Your task to perform on an android device: Clear all items from cart on amazon. Add macbook to the cart on amazon Image 0: 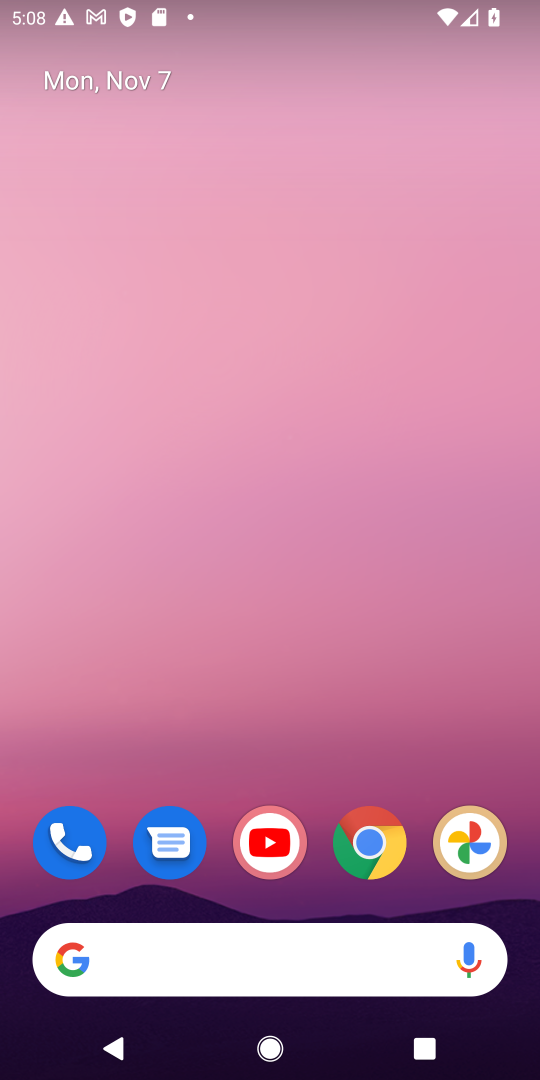
Step 0: drag from (241, 614) to (372, 42)
Your task to perform on an android device: Clear all items from cart on amazon. Add macbook to the cart on amazon Image 1: 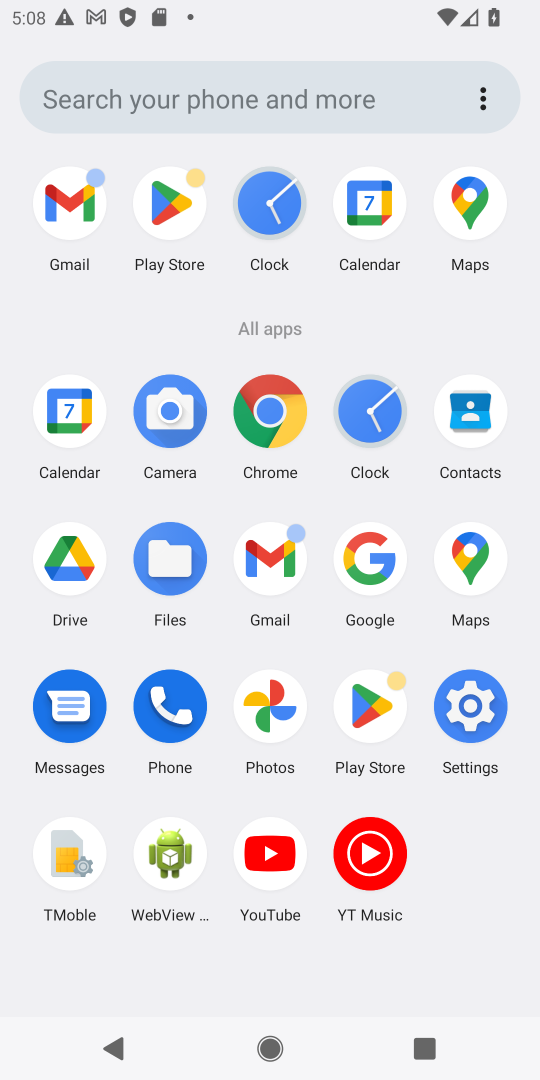
Step 1: click (230, 434)
Your task to perform on an android device: Clear all items from cart on amazon. Add macbook to the cart on amazon Image 2: 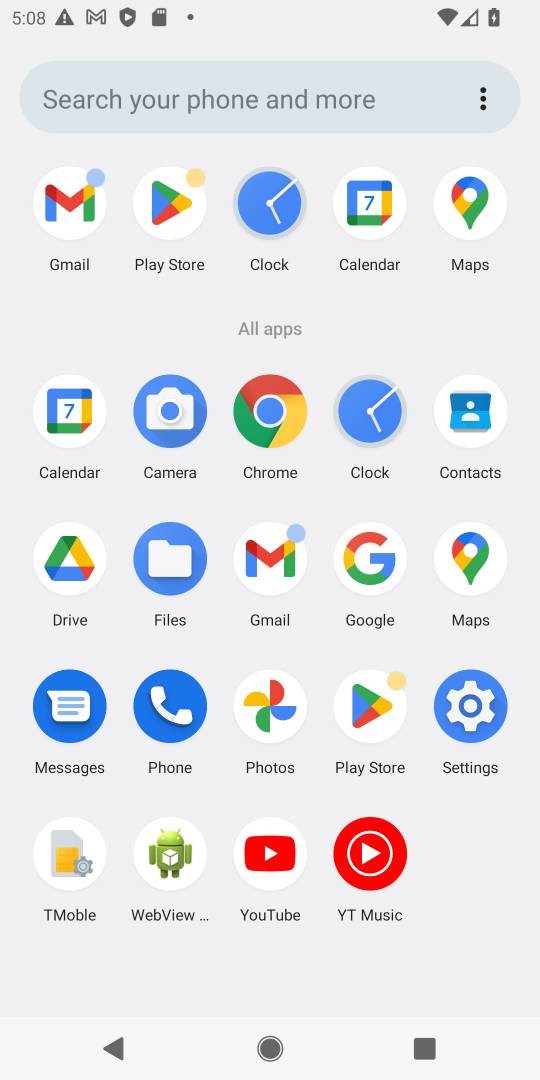
Step 2: click (262, 424)
Your task to perform on an android device: Clear all items from cart on amazon. Add macbook to the cart on amazon Image 3: 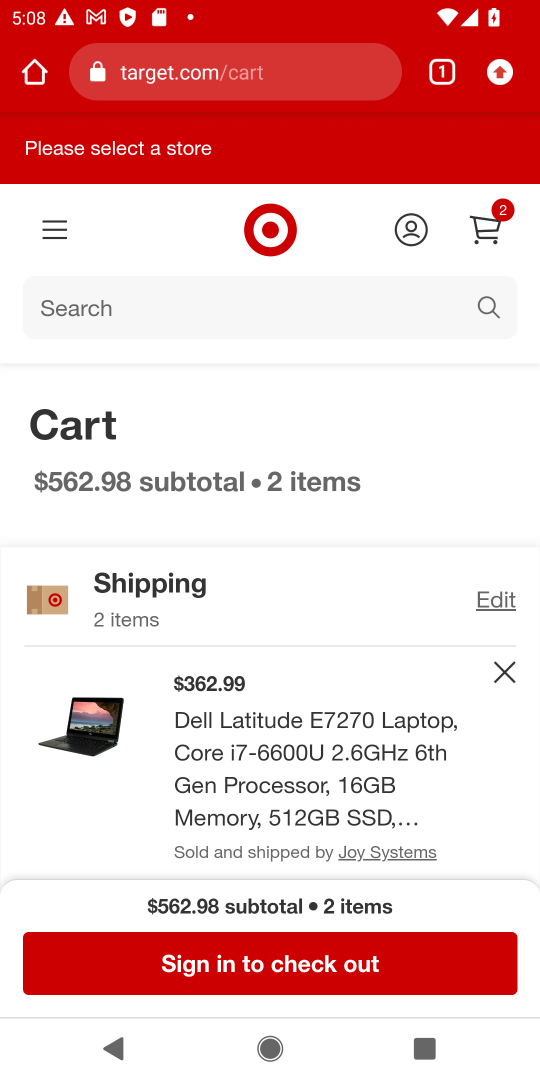
Step 3: click (283, 69)
Your task to perform on an android device: Clear all items from cart on amazon. Add macbook to the cart on amazon Image 4: 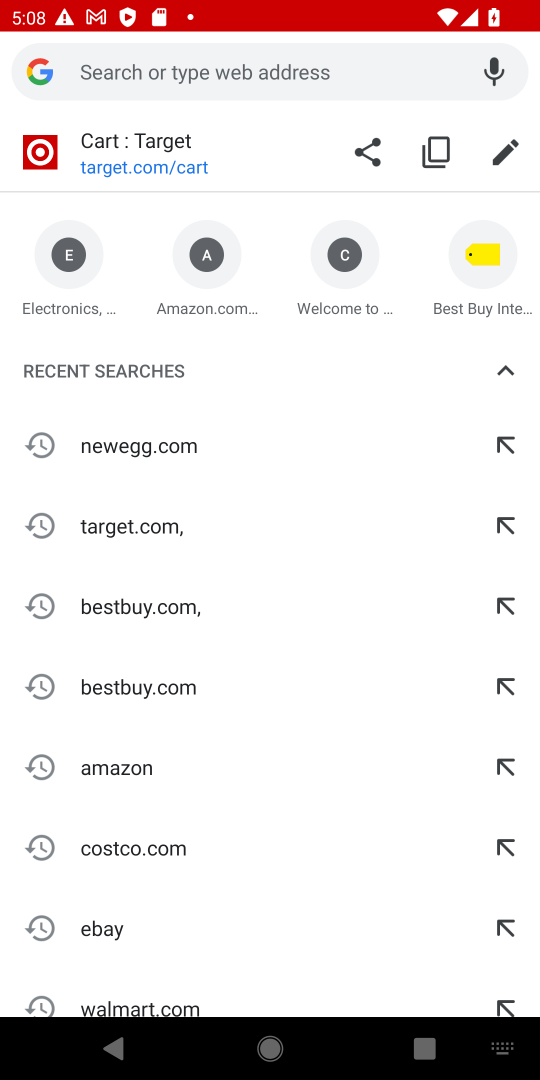
Step 4: click (103, 762)
Your task to perform on an android device: Clear all items from cart on amazon. Add macbook to the cart on amazon Image 5: 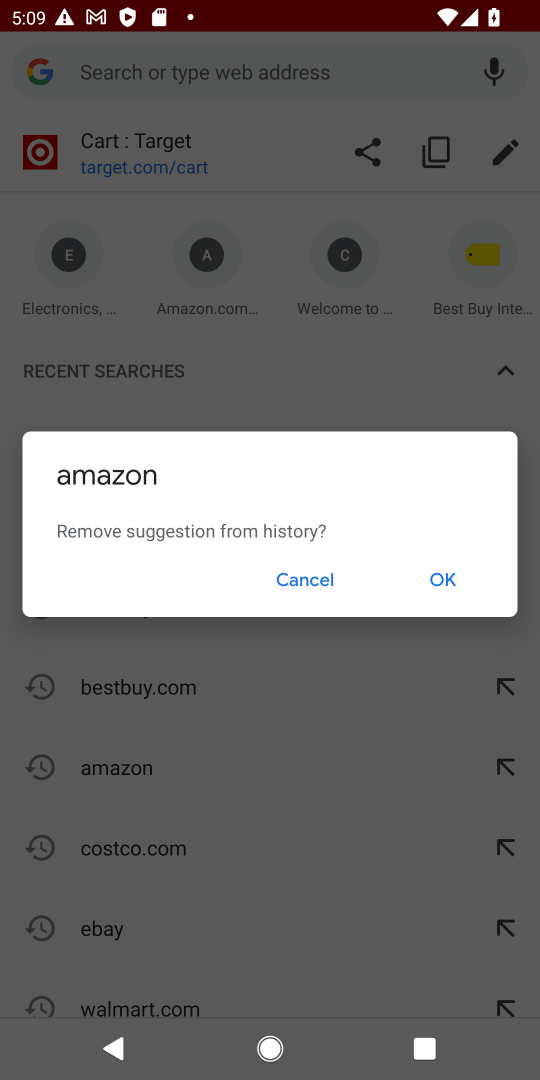
Step 5: click (288, 582)
Your task to perform on an android device: Clear all items from cart on amazon. Add macbook to the cart on amazon Image 6: 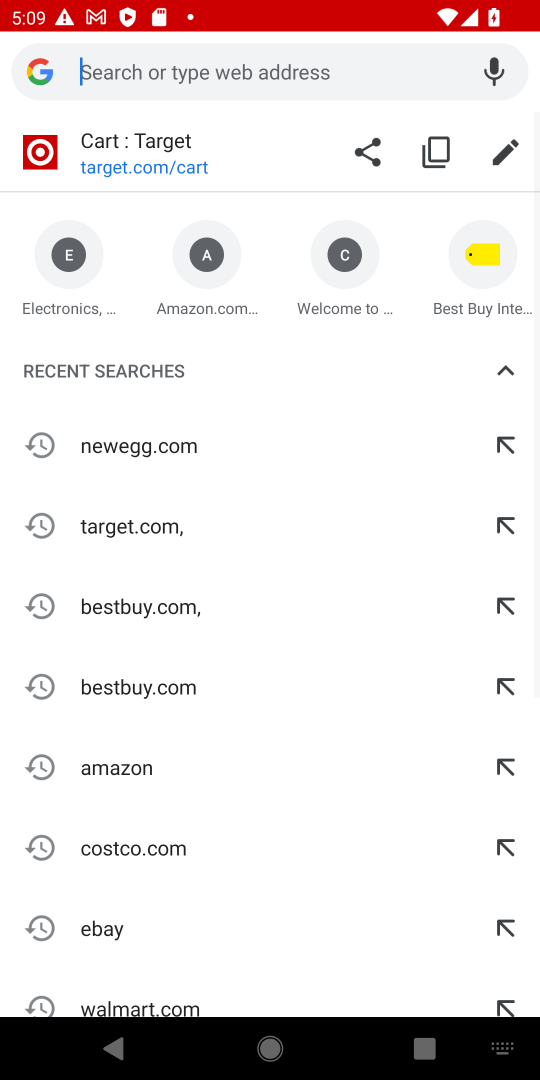
Step 6: click (94, 770)
Your task to perform on an android device: Clear all items from cart on amazon. Add macbook to the cart on amazon Image 7: 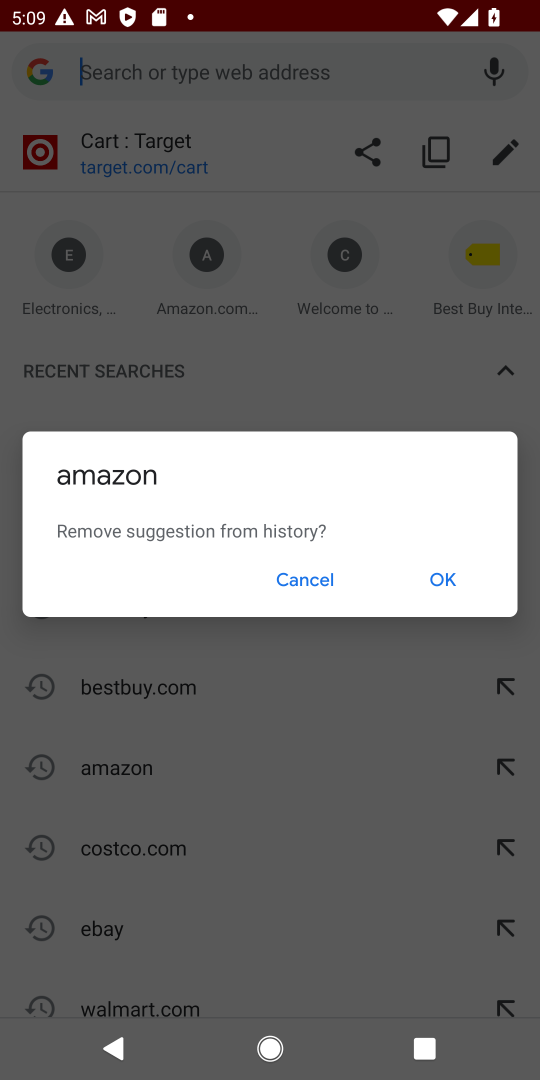
Step 7: click (315, 584)
Your task to perform on an android device: Clear all items from cart on amazon. Add macbook to the cart on amazon Image 8: 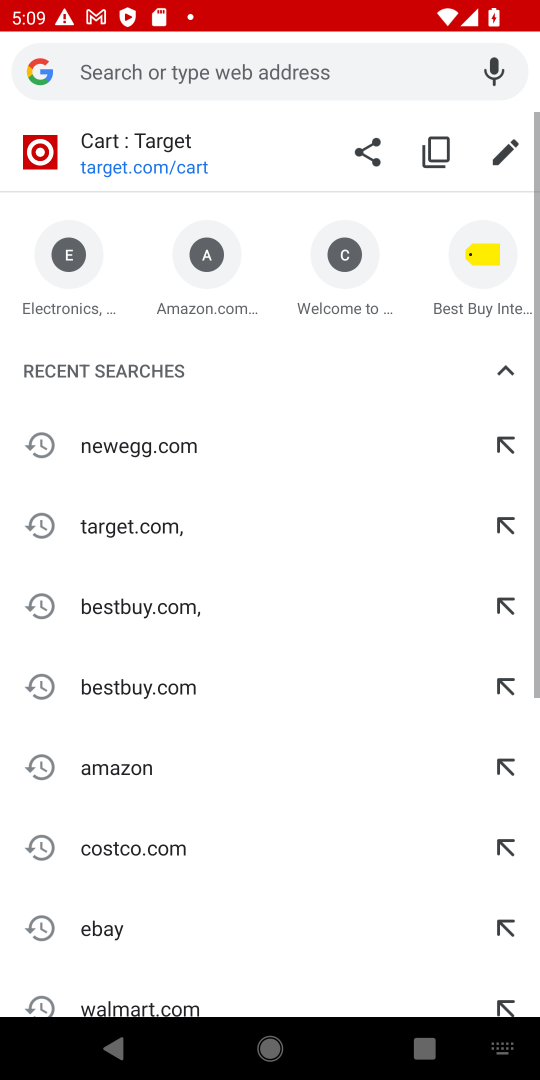
Step 8: click (30, 760)
Your task to perform on an android device: Clear all items from cart on amazon. Add macbook to the cart on amazon Image 9: 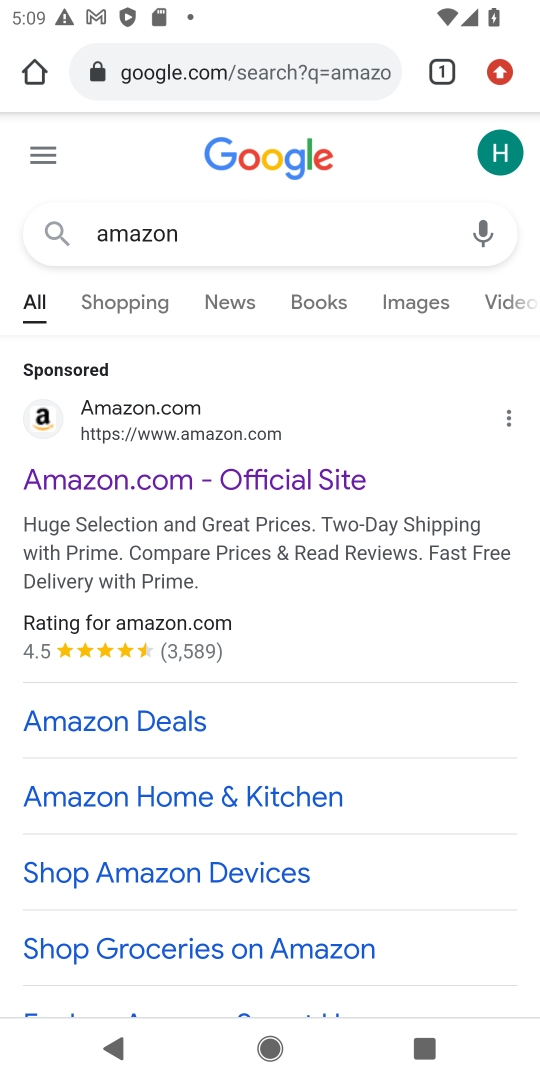
Step 9: click (70, 410)
Your task to perform on an android device: Clear all items from cart on amazon. Add macbook to the cart on amazon Image 10: 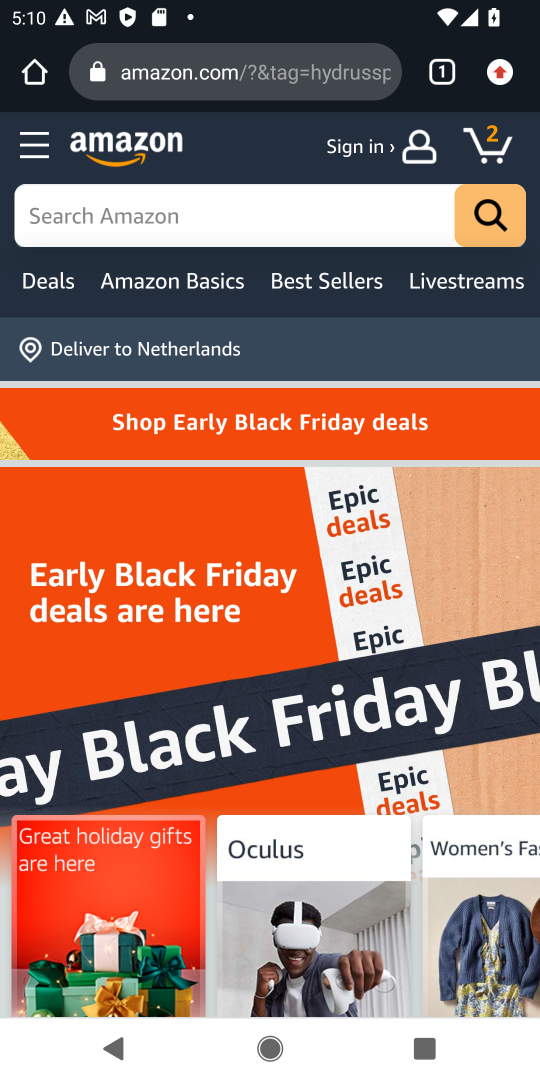
Step 10: click (227, 234)
Your task to perform on an android device: Clear all items from cart on amazon. Add macbook to the cart on amazon Image 11: 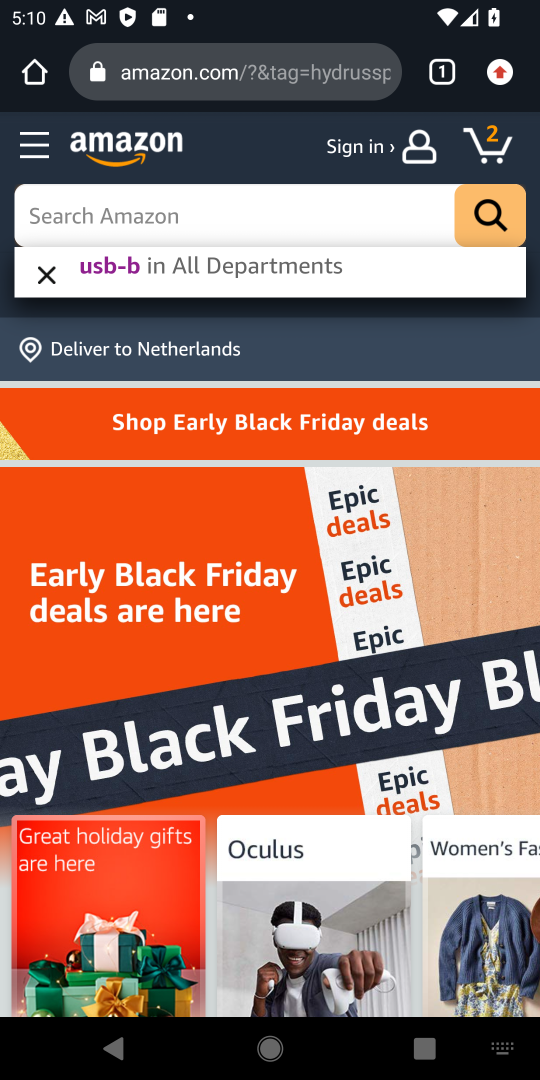
Step 11: click (496, 139)
Your task to perform on an android device: Clear all items from cart on amazon. Add macbook to the cart on amazon Image 12: 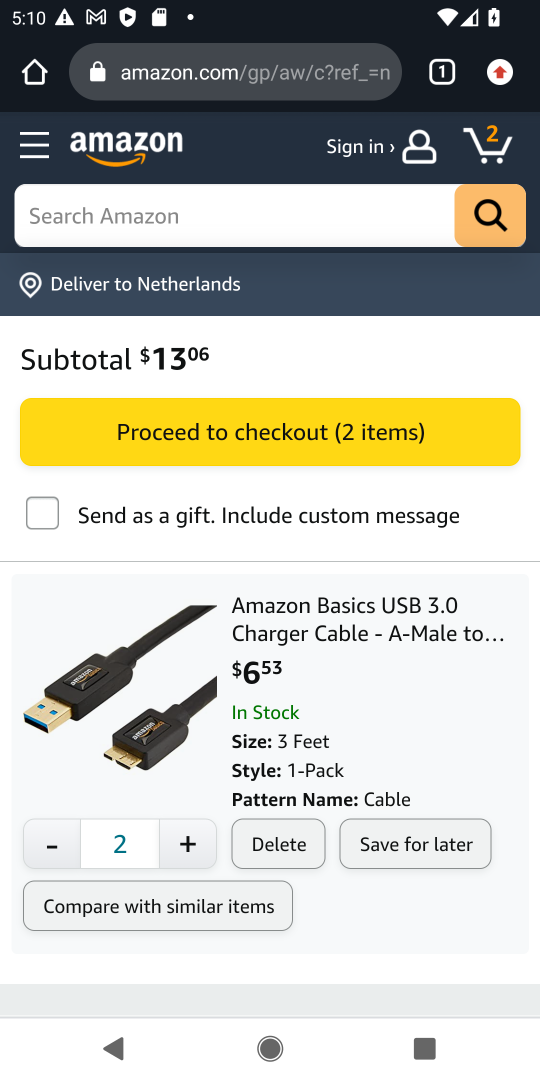
Step 12: click (55, 849)
Your task to perform on an android device: Clear all items from cart on amazon. Add macbook to the cart on amazon Image 13: 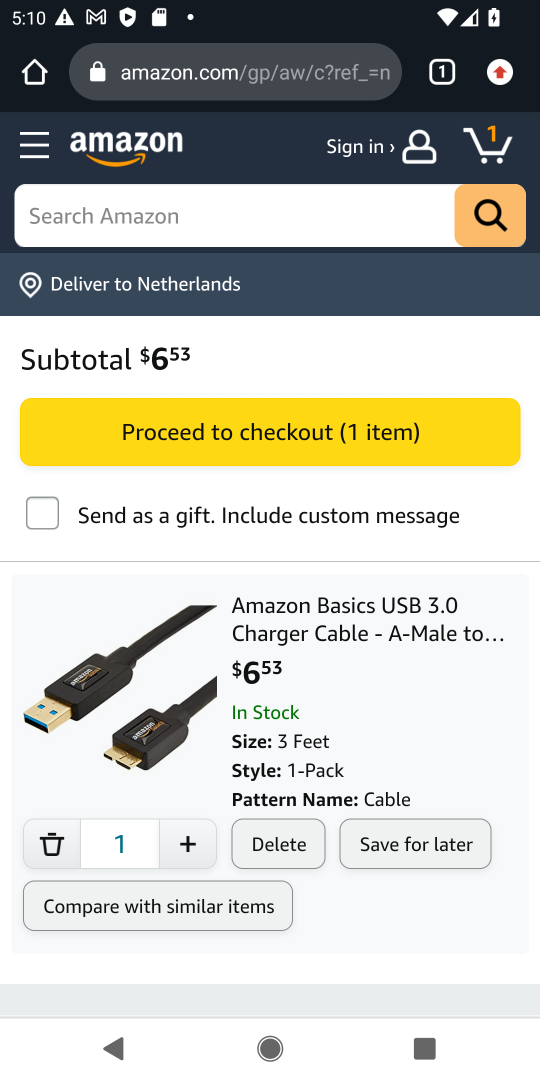
Step 13: drag from (396, 924) to (500, 529)
Your task to perform on an android device: Clear all items from cart on amazon. Add macbook to the cart on amazon Image 14: 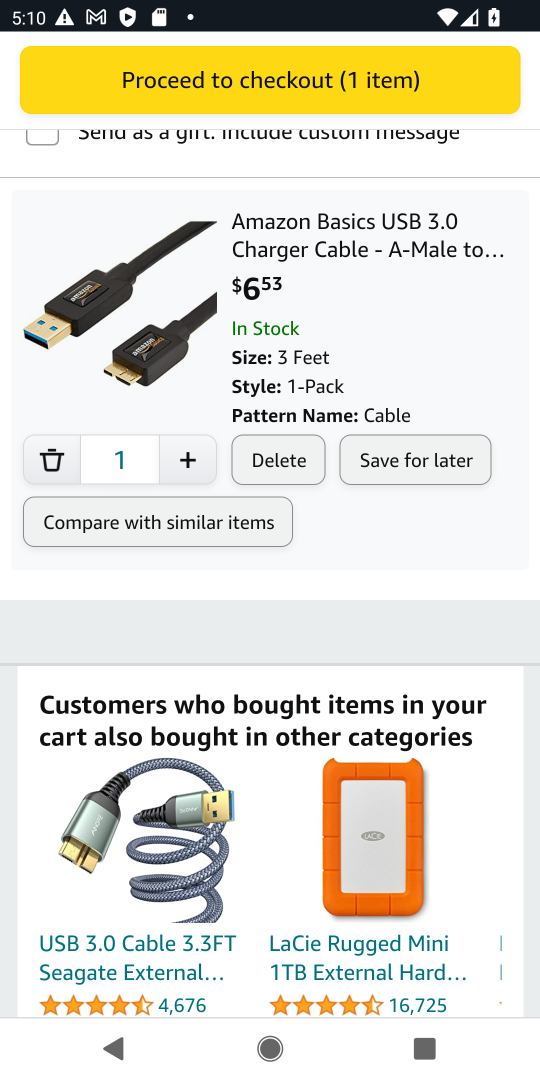
Step 14: drag from (389, 857) to (430, 322)
Your task to perform on an android device: Clear all items from cart on amazon. Add macbook to the cart on amazon Image 15: 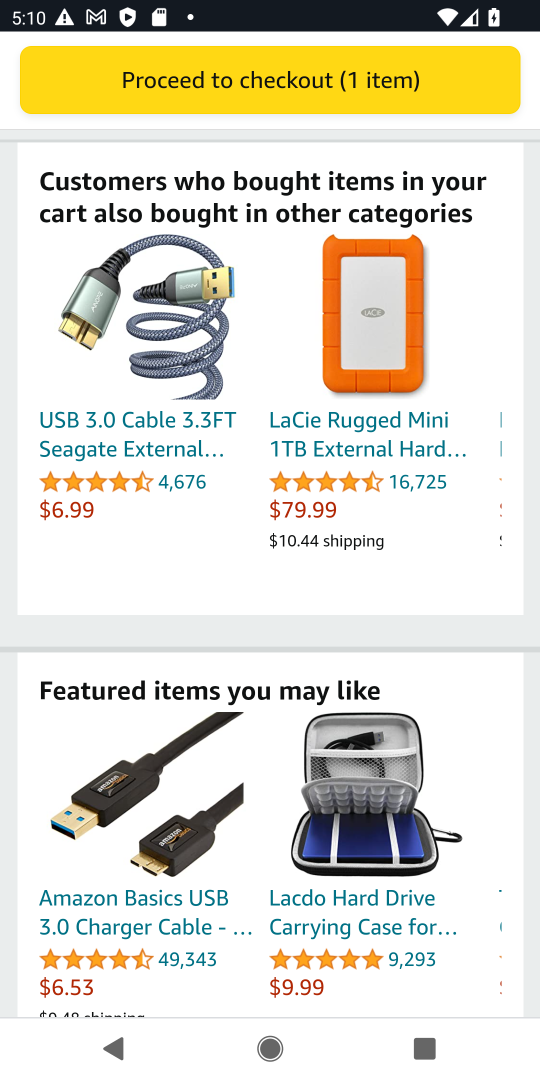
Step 15: drag from (342, 761) to (404, 322)
Your task to perform on an android device: Clear all items from cart on amazon. Add macbook to the cart on amazon Image 16: 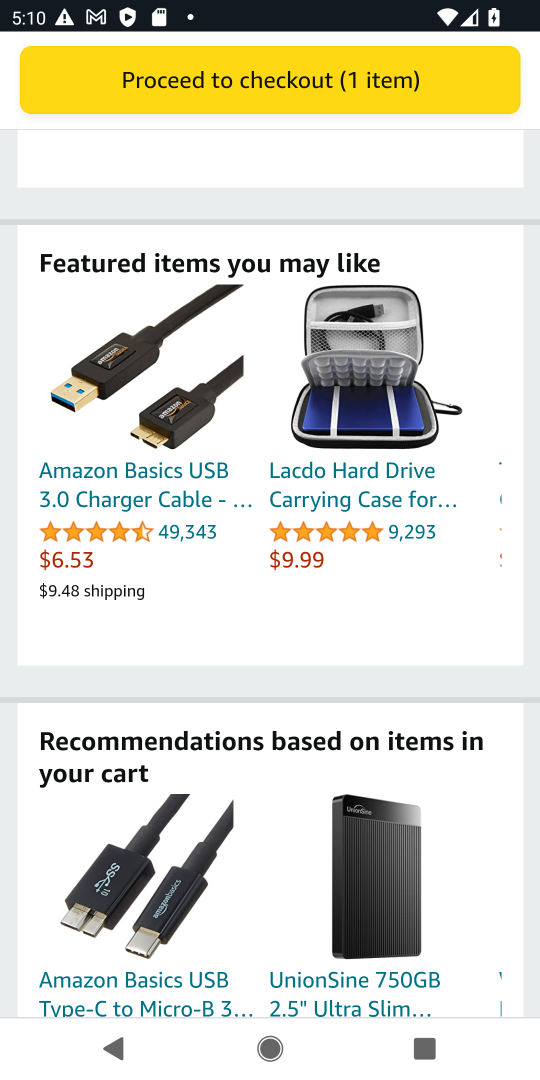
Step 16: drag from (289, 871) to (360, 325)
Your task to perform on an android device: Clear all items from cart on amazon. Add macbook to the cart on amazon Image 17: 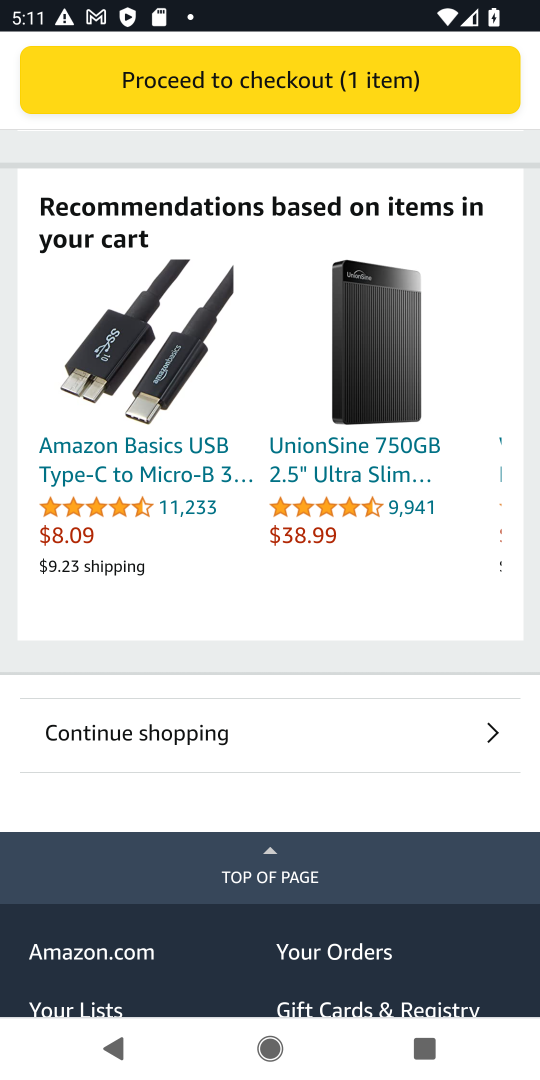
Step 17: drag from (360, 348) to (277, 877)
Your task to perform on an android device: Clear all items from cart on amazon. Add macbook to the cart on amazon Image 18: 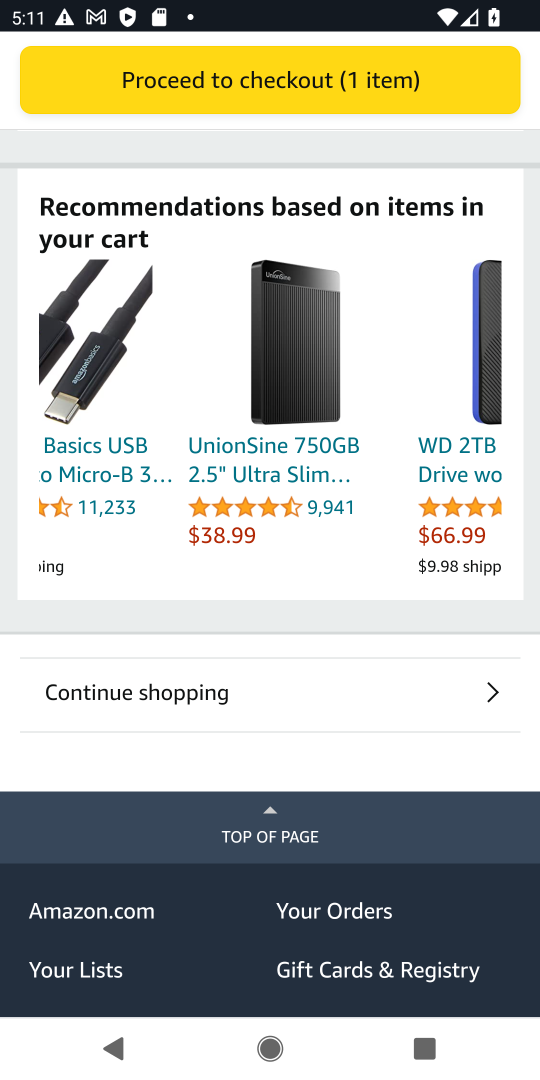
Step 18: drag from (303, 253) to (228, 840)
Your task to perform on an android device: Clear all items from cart on amazon. Add macbook to the cart on amazon Image 19: 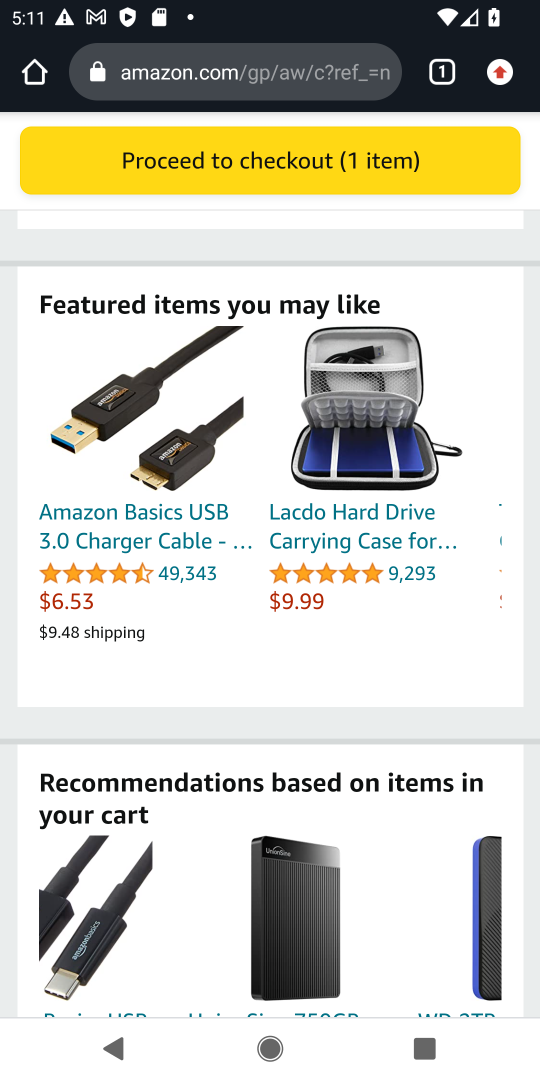
Step 19: drag from (328, 371) to (269, 889)
Your task to perform on an android device: Clear all items from cart on amazon. Add macbook to the cart on amazon Image 20: 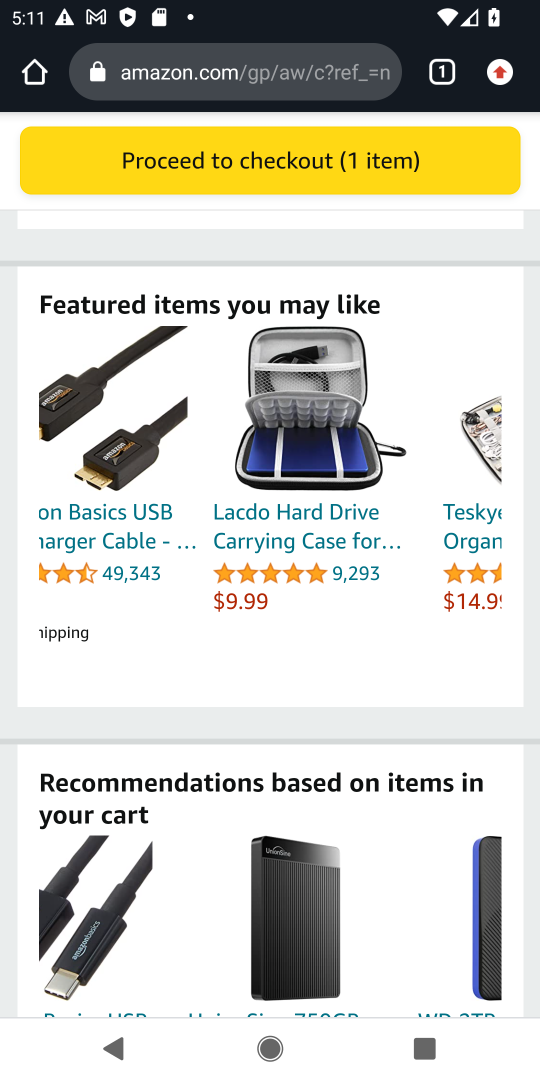
Step 20: drag from (403, 270) to (373, 778)
Your task to perform on an android device: Clear all items from cart on amazon. Add macbook to the cart on amazon Image 21: 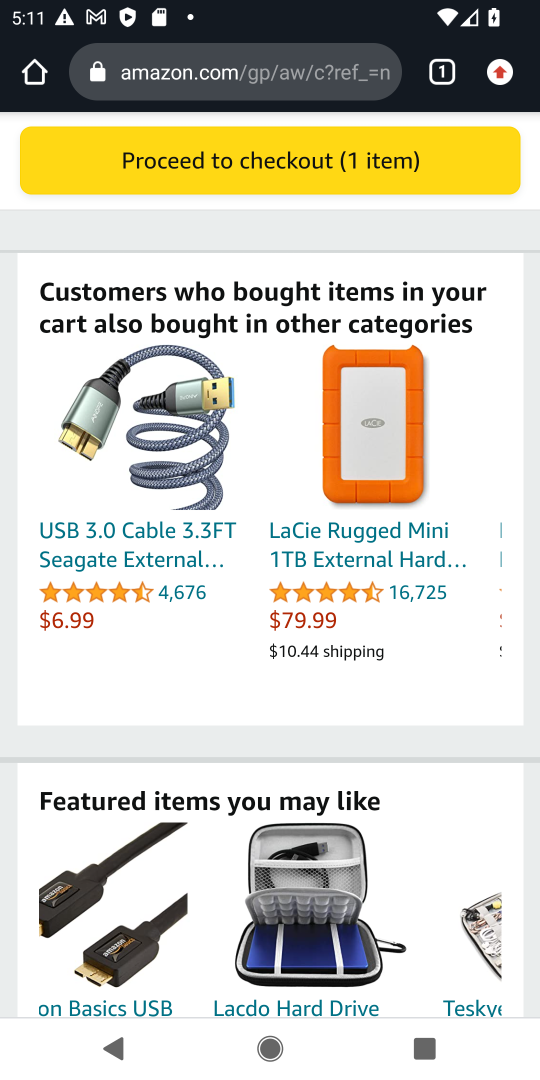
Step 21: drag from (465, 214) to (420, 735)
Your task to perform on an android device: Clear all items from cart on amazon. Add macbook to the cart on amazon Image 22: 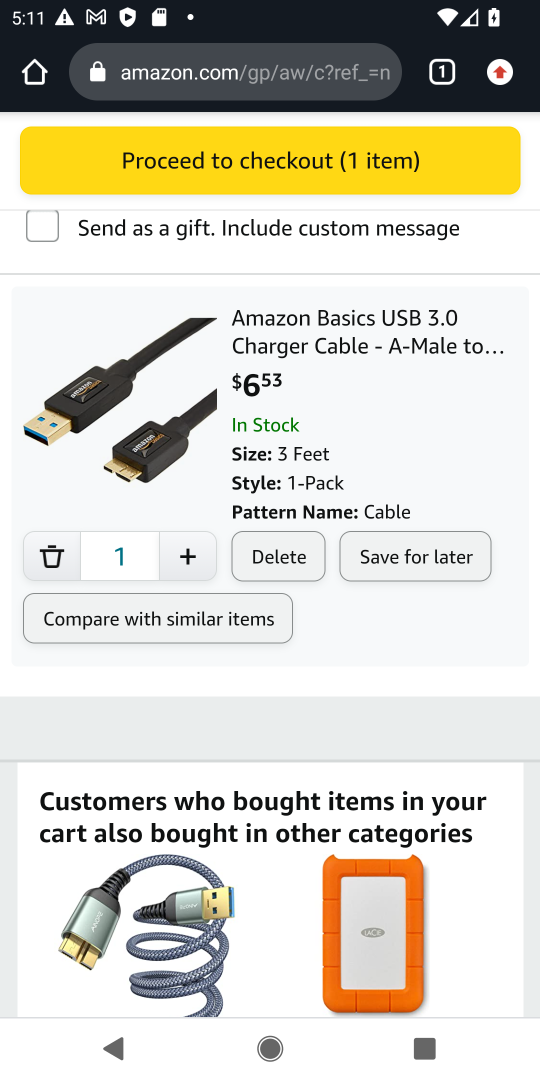
Step 22: drag from (471, 302) to (428, 788)
Your task to perform on an android device: Clear all items from cart on amazon. Add macbook to the cart on amazon Image 23: 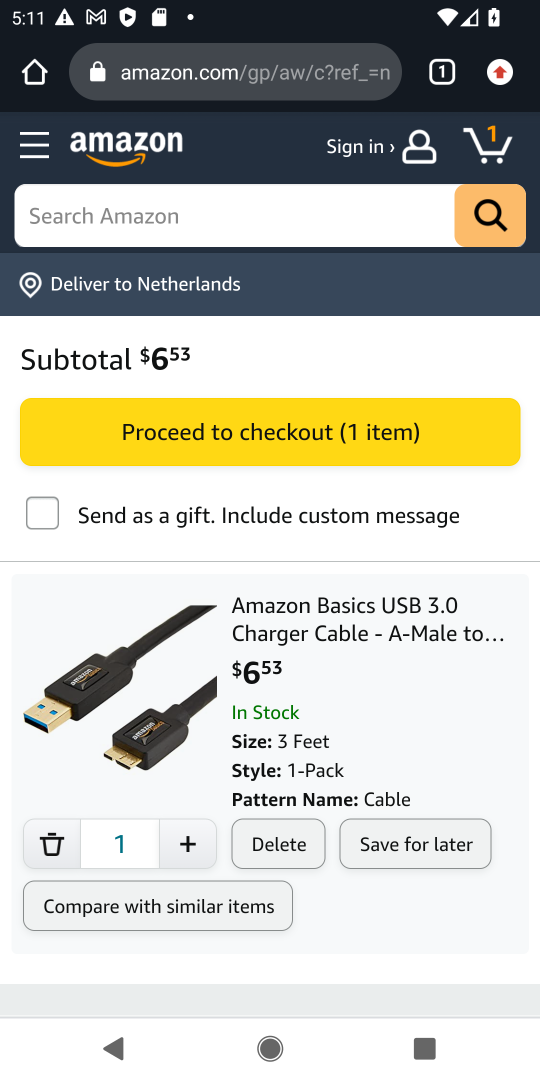
Step 23: click (277, 849)
Your task to perform on an android device: Clear all items from cart on amazon. Add macbook to the cart on amazon Image 24: 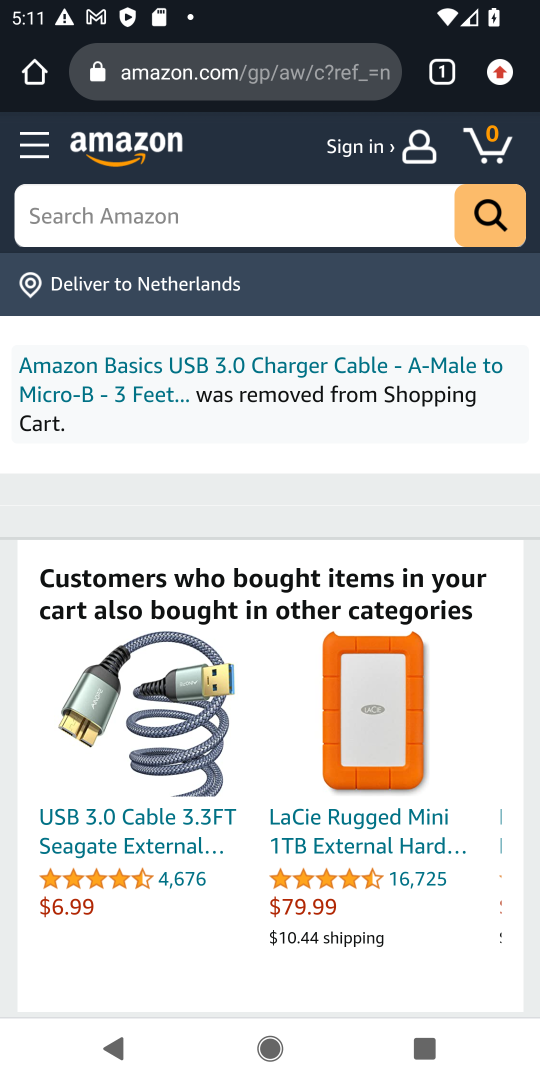
Step 24: click (262, 229)
Your task to perform on an android device: Clear all items from cart on amazon. Add macbook to the cart on amazon Image 25: 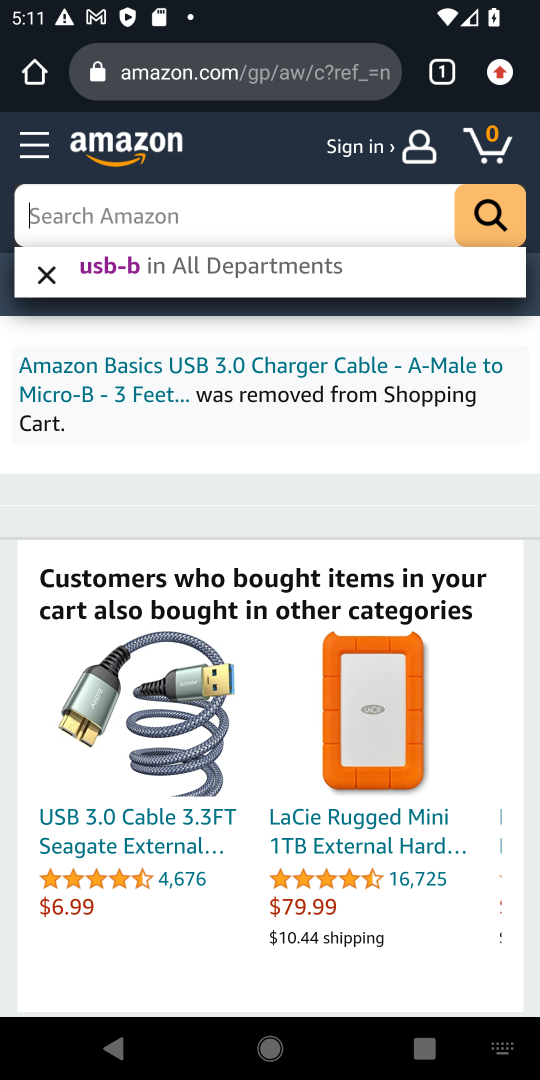
Step 25: type "macbook"
Your task to perform on an android device: Clear all items from cart on amazon. Add macbook to the cart on amazon Image 26: 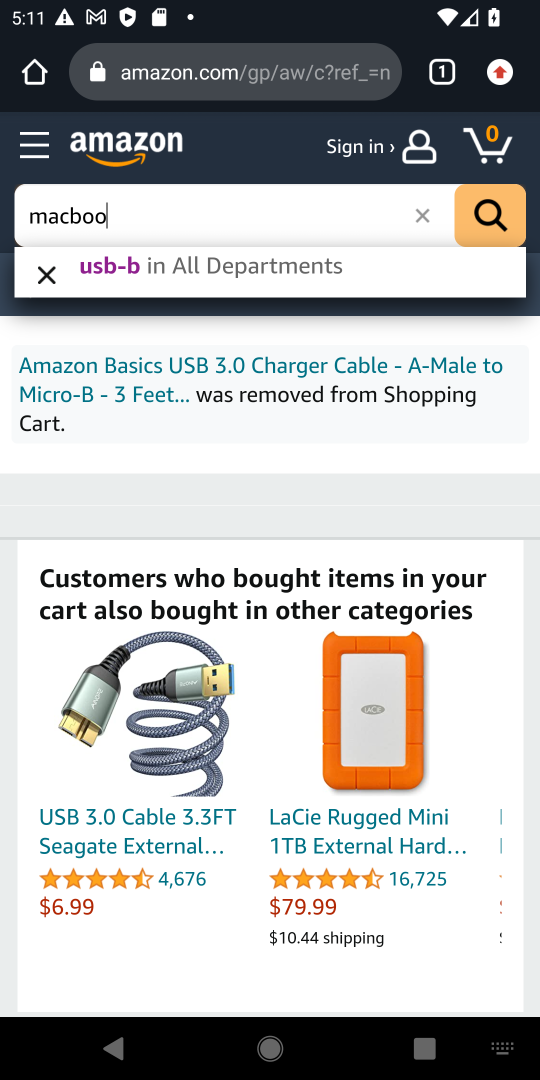
Step 26: press enter
Your task to perform on an android device: Clear all items from cart on amazon. Add macbook to the cart on amazon Image 27: 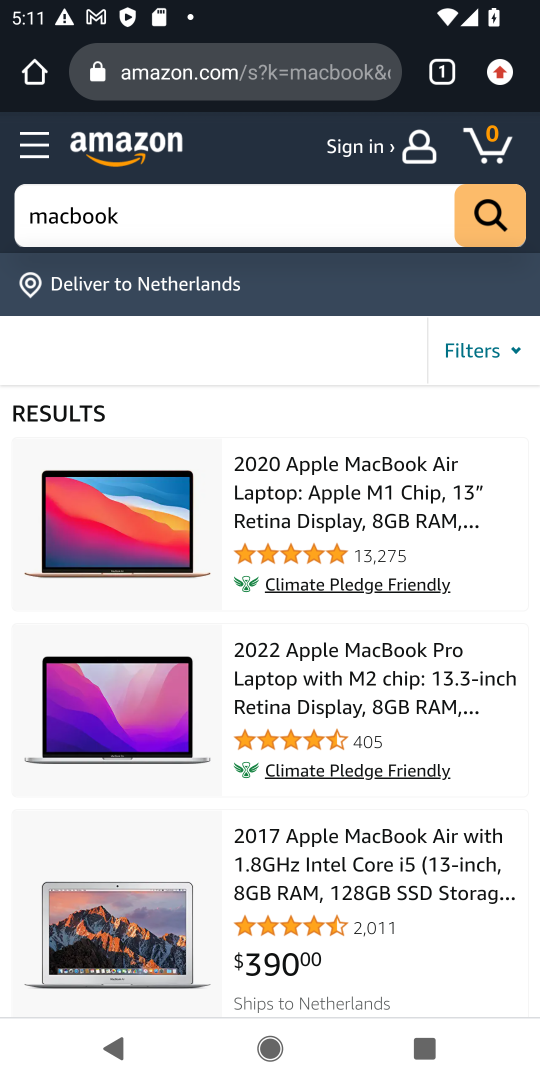
Step 27: click (72, 545)
Your task to perform on an android device: Clear all items from cart on amazon. Add macbook to the cart on amazon Image 28: 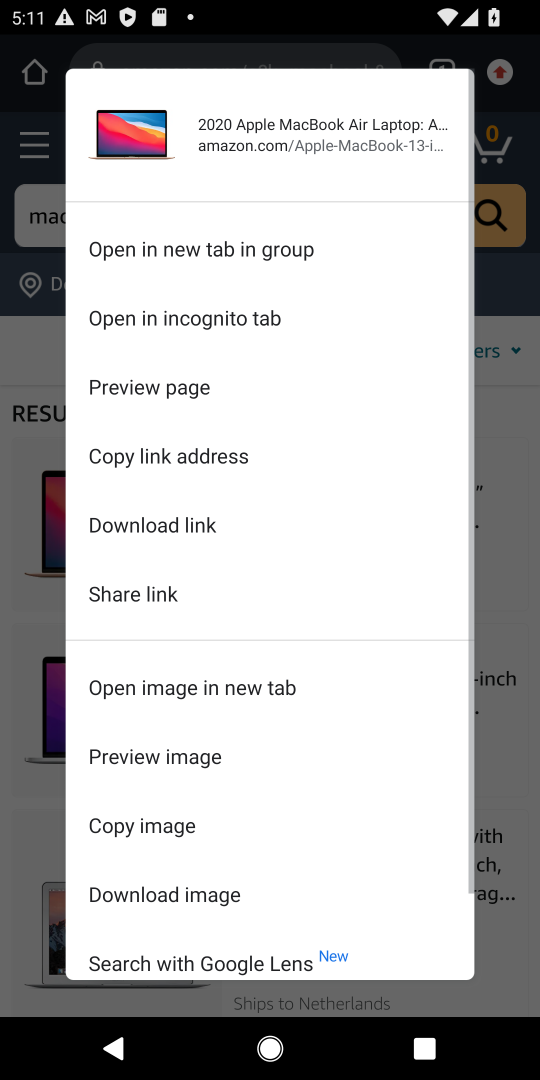
Step 28: click (56, 508)
Your task to perform on an android device: Clear all items from cart on amazon. Add macbook to the cart on amazon Image 29: 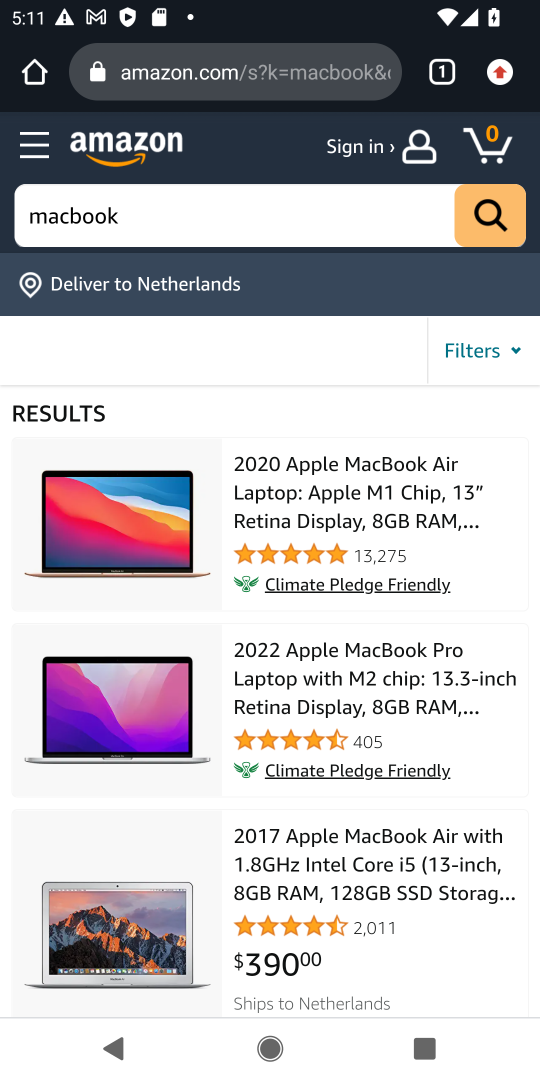
Step 29: click (348, 512)
Your task to perform on an android device: Clear all items from cart on amazon. Add macbook to the cart on amazon Image 30: 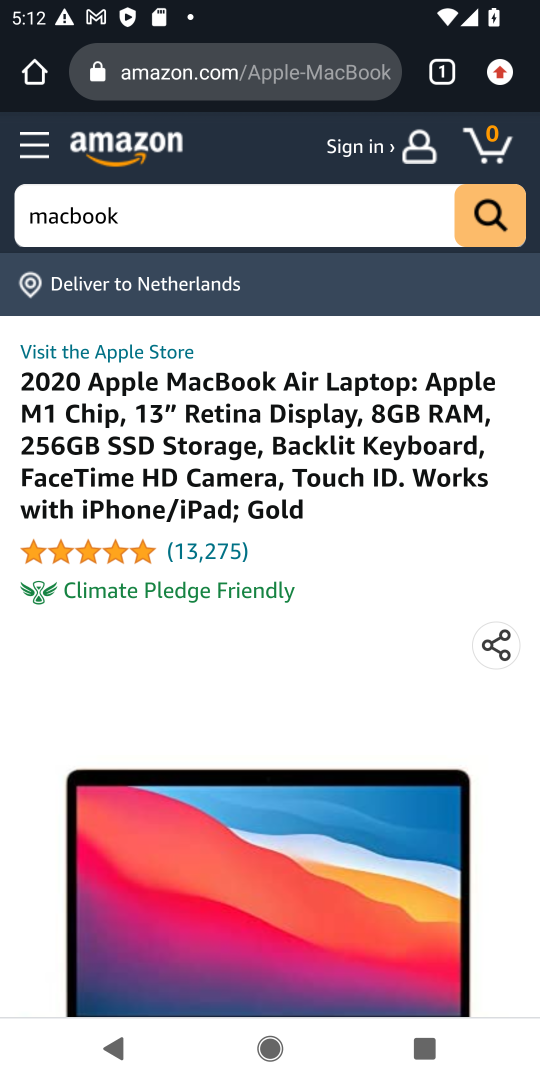
Step 30: drag from (249, 939) to (322, 407)
Your task to perform on an android device: Clear all items from cart on amazon. Add macbook to the cart on amazon Image 31: 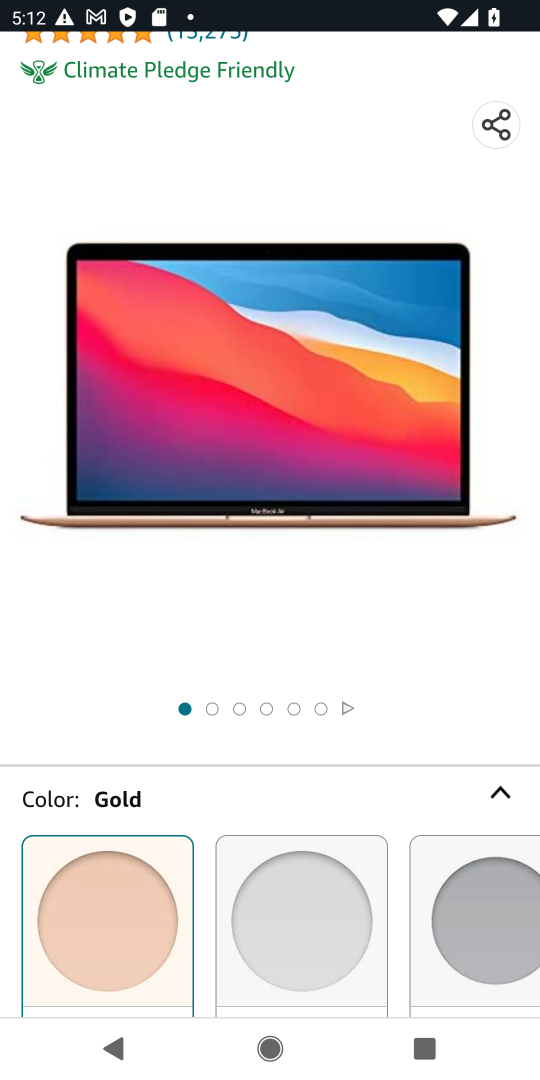
Step 31: drag from (332, 774) to (493, 285)
Your task to perform on an android device: Clear all items from cart on amazon. Add macbook to the cart on amazon Image 32: 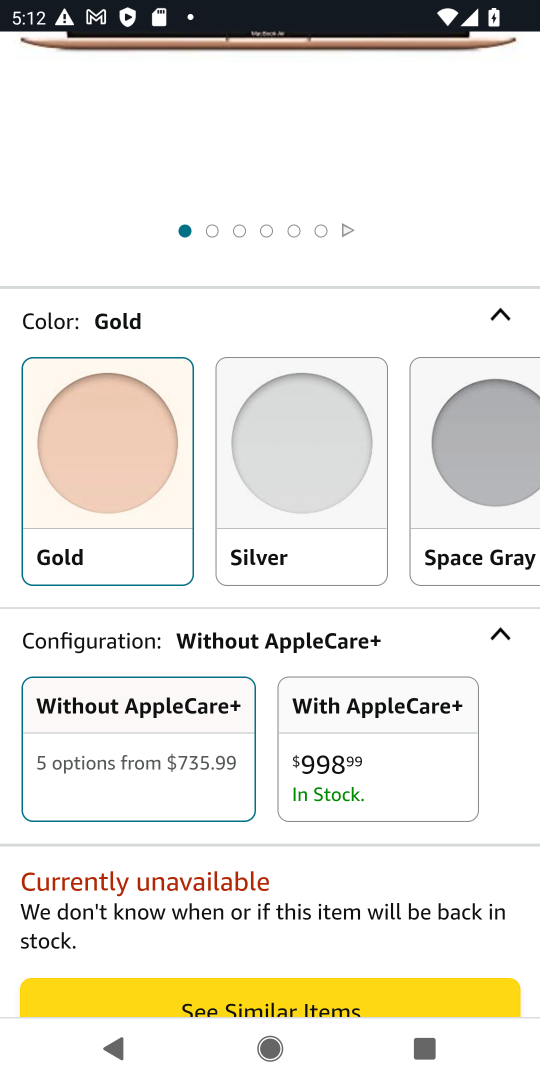
Step 32: drag from (270, 952) to (337, 550)
Your task to perform on an android device: Clear all items from cart on amazon. Add macbook to the cart on amazon Image 33: 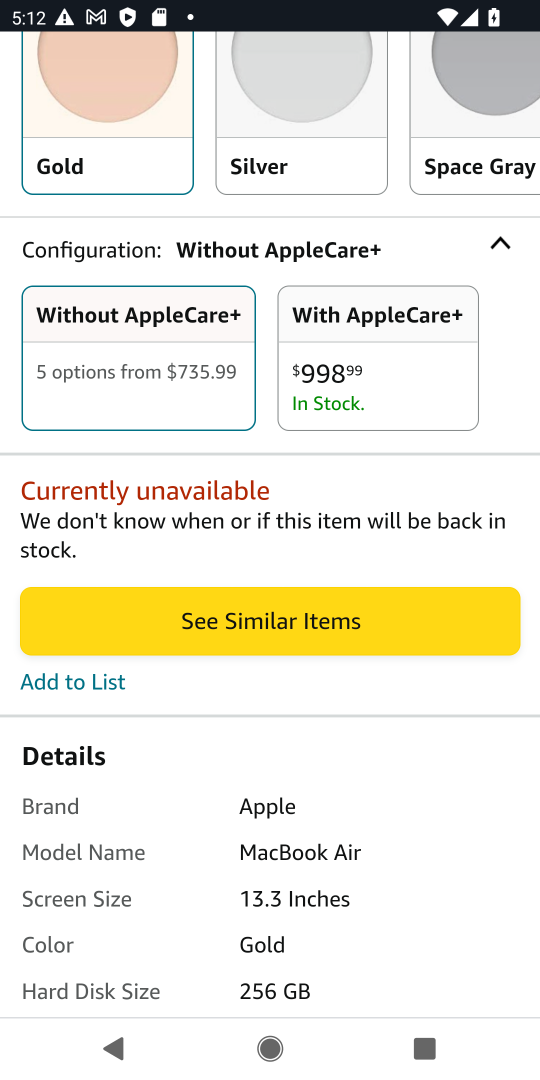
Step 33: drag from (323, 808) to (446, 297)
Your task to perform on an android device: Clear all items from cart on amazon. Add macbook to the cart on amazon Image 34: 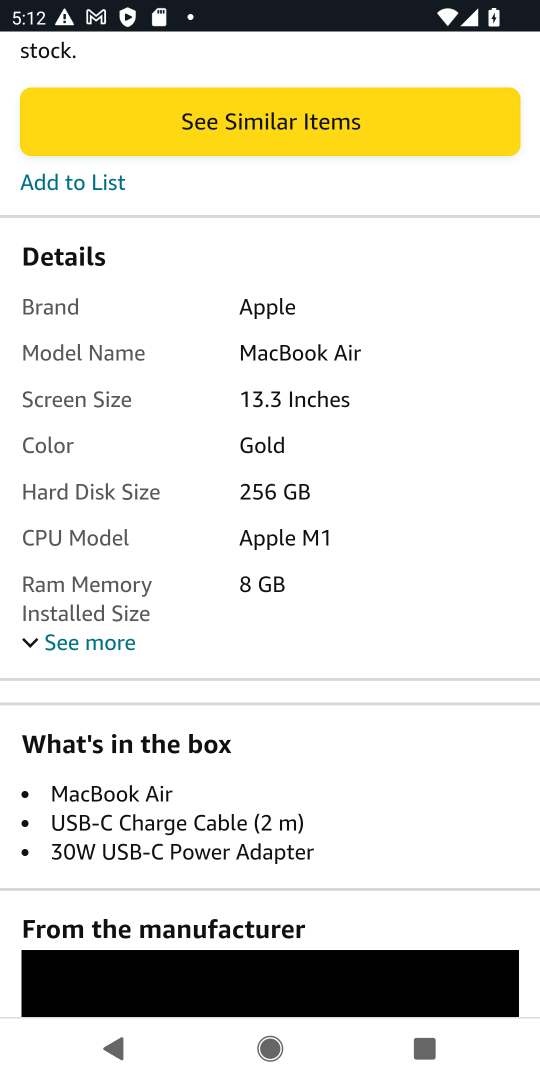
Step 34: drag from (309, 839) to (441, 342)
Your task to perform on an android device: Clear all items from cart on amazon. Add macbook to the cart on amazon Image 35: 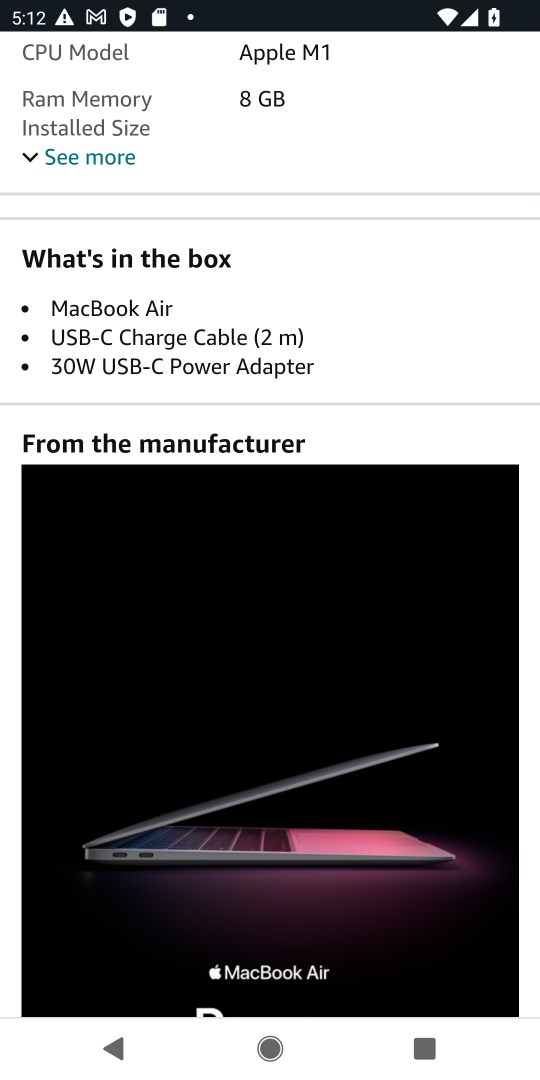
Step 35: drag from (283, 867) to (378, 377)
Your task to perform on an android device: Clear all items from cart on amazon. Add macbook to the cart on amazon Image 36: 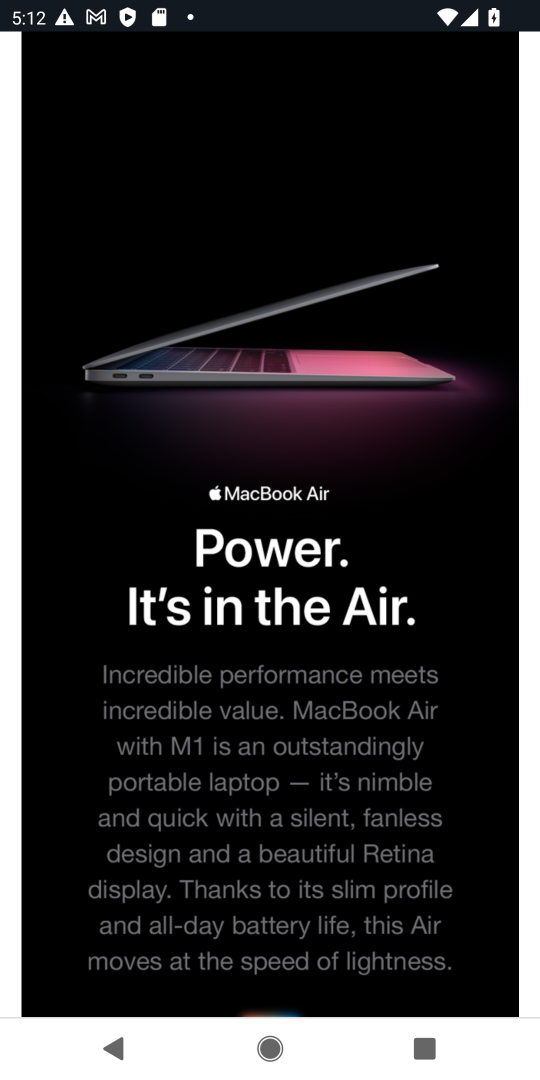
Step 36: drag from (388, 392) to (326, 923)
Your task to perform on an android device: Clear all items from cart on amazon. Add macbook to the cart on amazon Image 37: 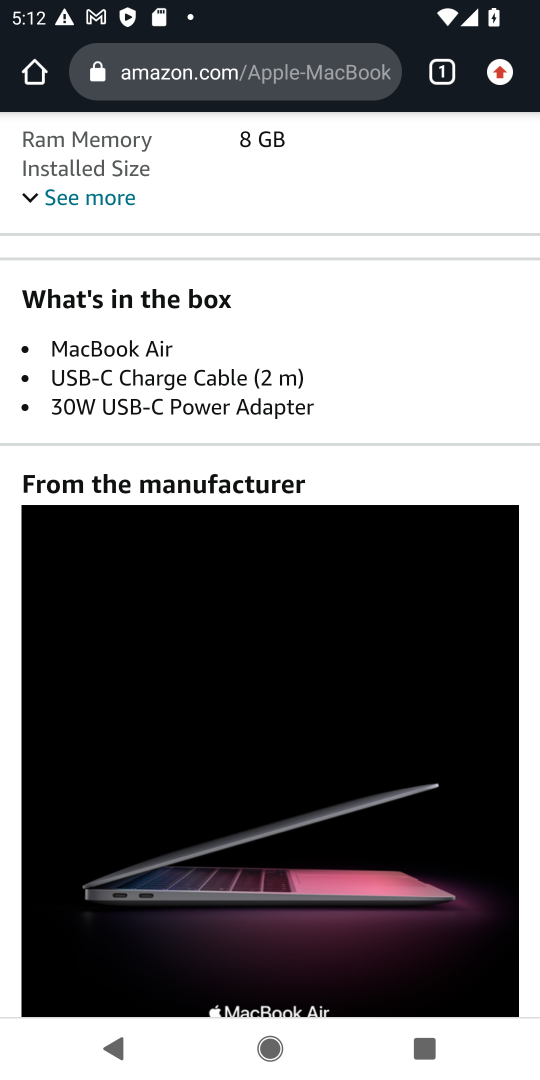
Step 37: drag from (408, 316) to (349, 861)
Your task to perform on an android device: Clear all items from cart on amazon. Add macbook to the cart on amazon Image 38: 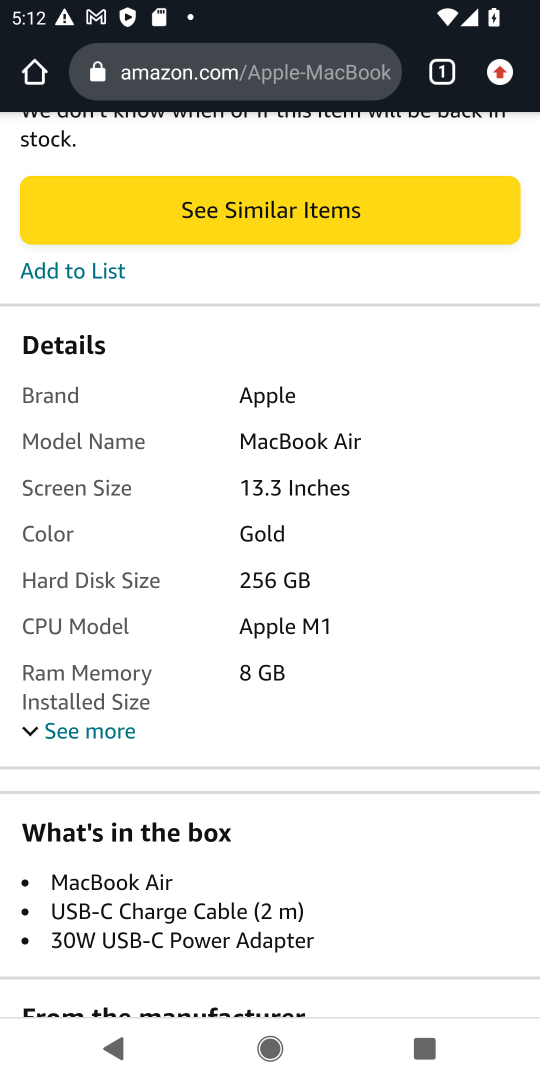
Step 38: drag from (420, 231) to (382, 780)
Your task to perform on an android device: Clear all items from cart on amazon. Add macbook to the cart on amazon Image 39: 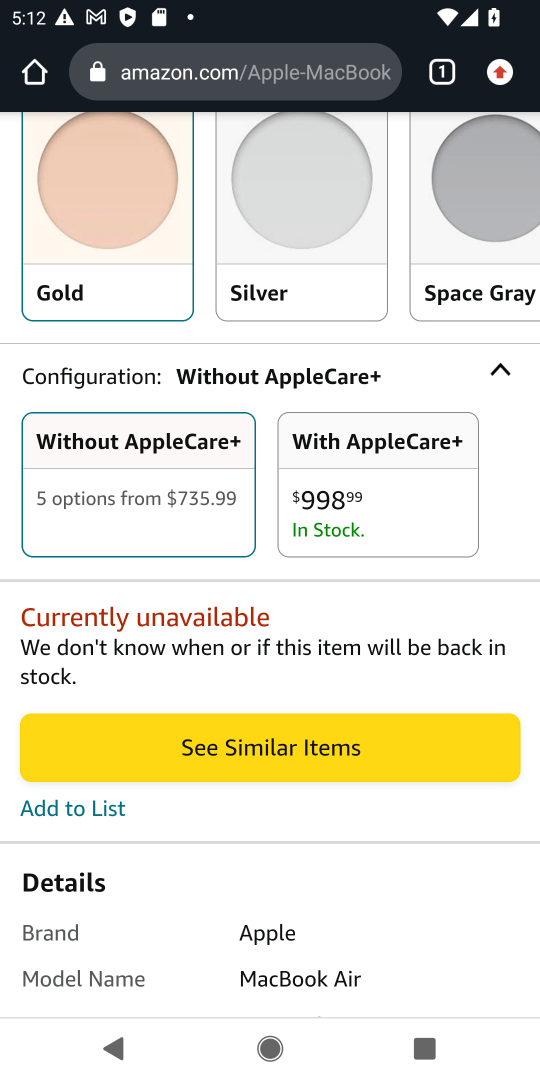
Step 39: drag from (397, 349) to (317, 723)
Your task to perform on an android device: Clear all items from cart on amazon. Add macbook to the cart on amazon Image 40: 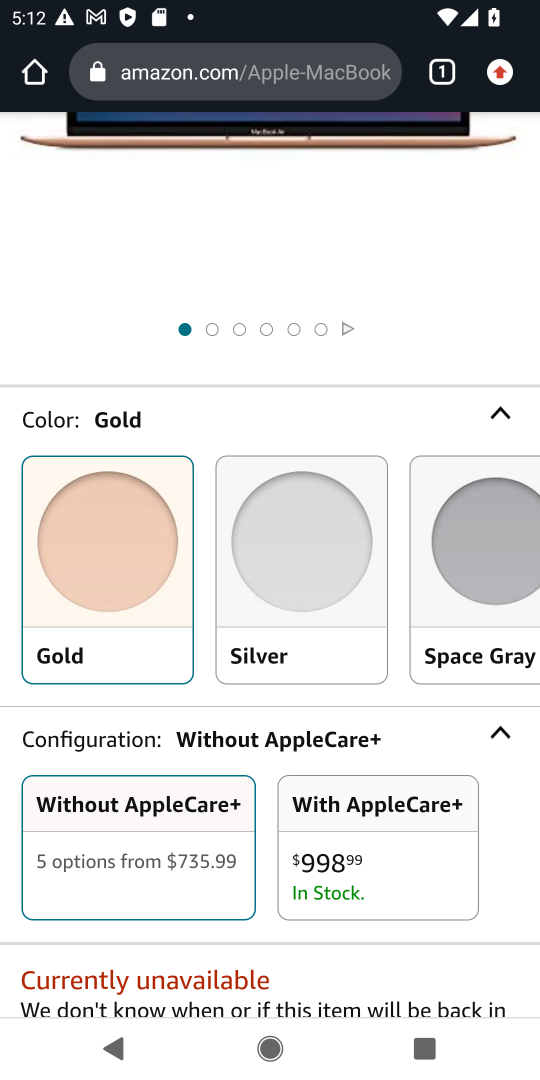
Step 40: click (285, 603)
Your task to perform on an android device: Clear all items from cart on amazon. Add macbook to the cart on amazon Image 41: 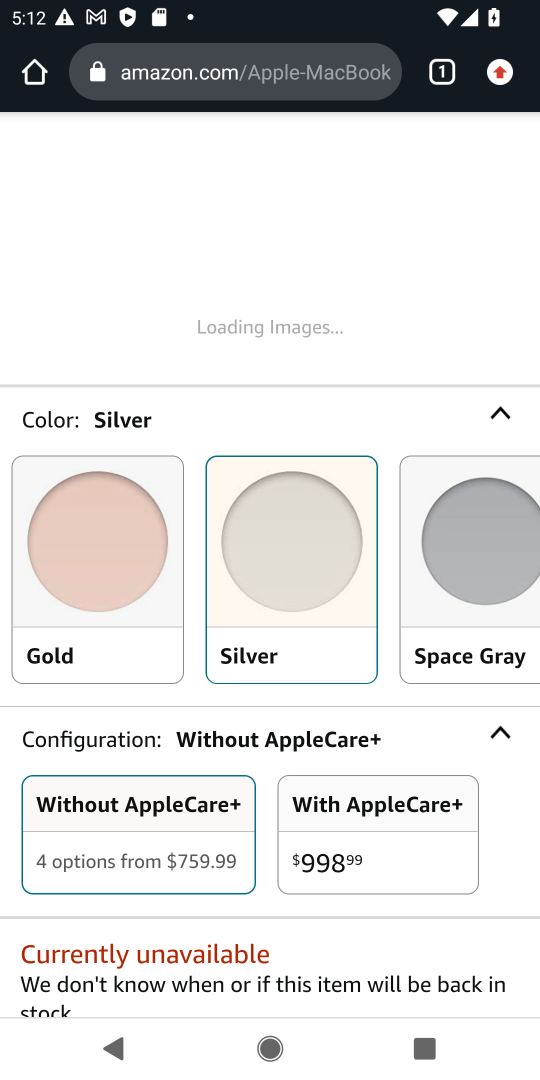
Step 41: drag from (319, 799) to (407, 402)
Your task to perform on an android device: Clear all items from cart on amazon. Add macbook to the cart on amazon Image 42: 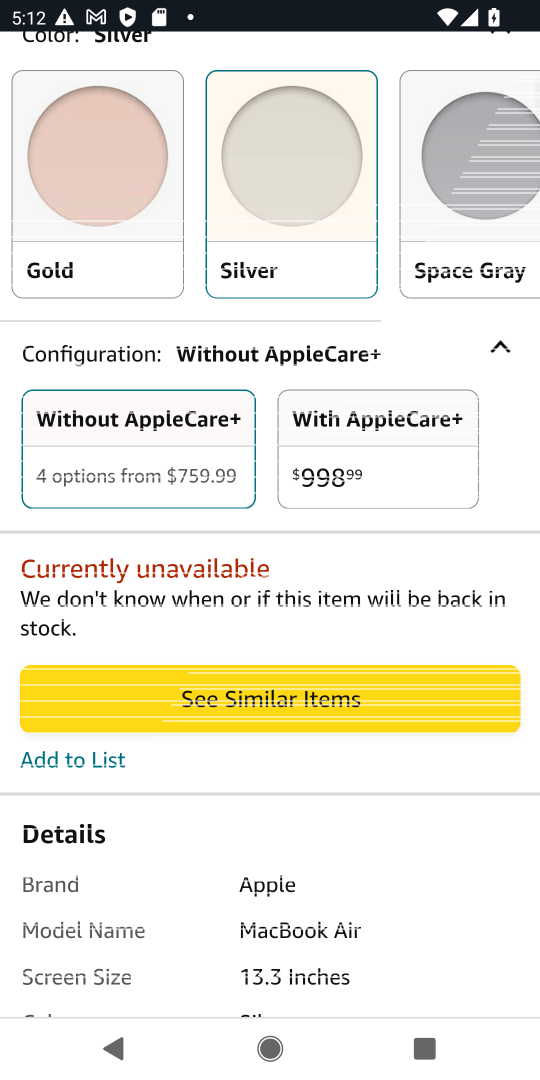
Step 42: drag from (410, 421) to (359, 900)
Your task to perform on an android device: Clear all items from cart on amazon. Add macbook to the cart on amazon Image 43: 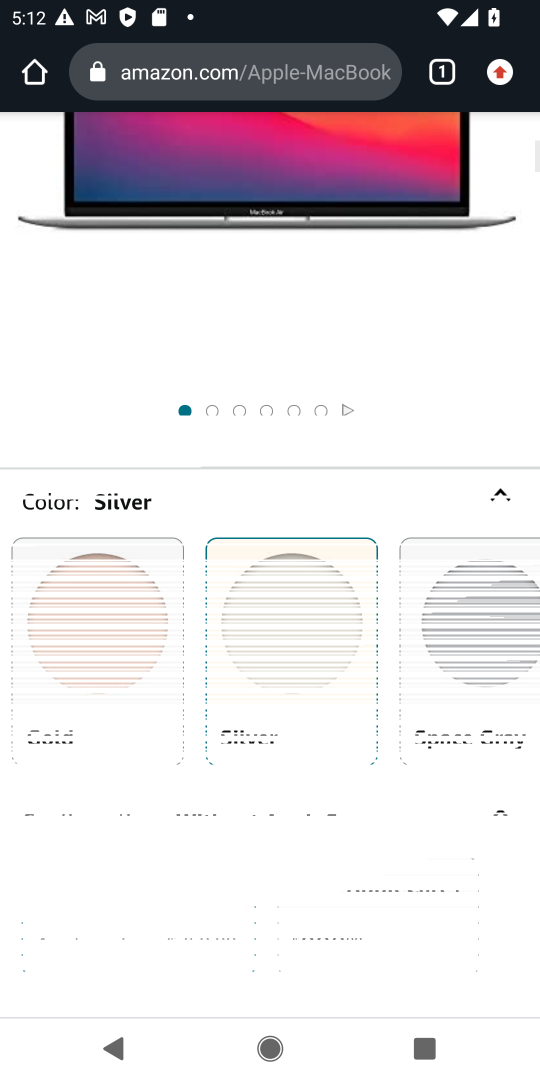
Step 43: press back button
Your task to perform on an android device: Clear all items from cart on amazon. Add macbook to the cart on amazon Image 44: 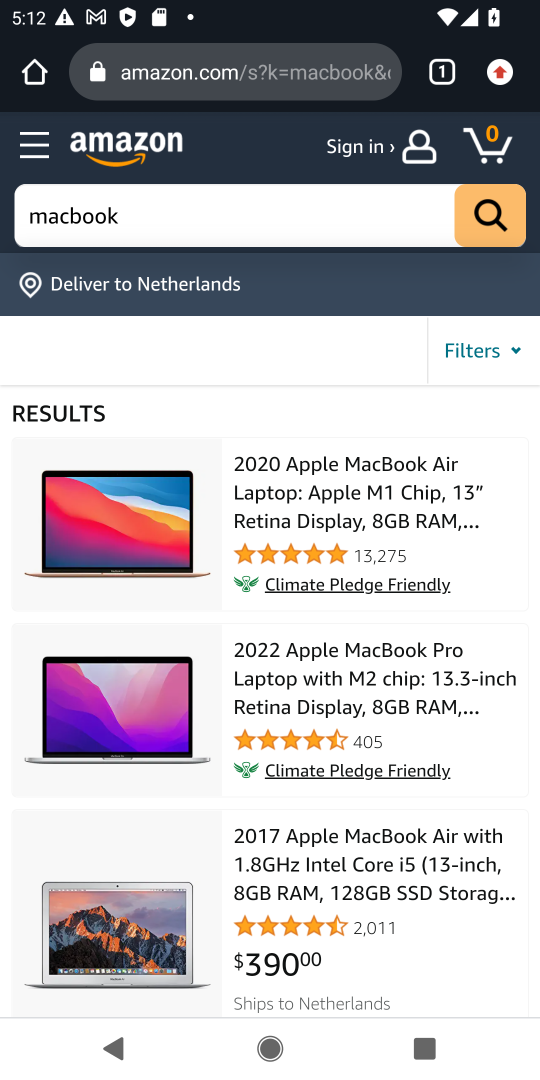
Step 44: click (304, 703)
Your task to perform on an android device: Clear all items from cart on amazon. Add macbook to the cart on amazon Image 45: 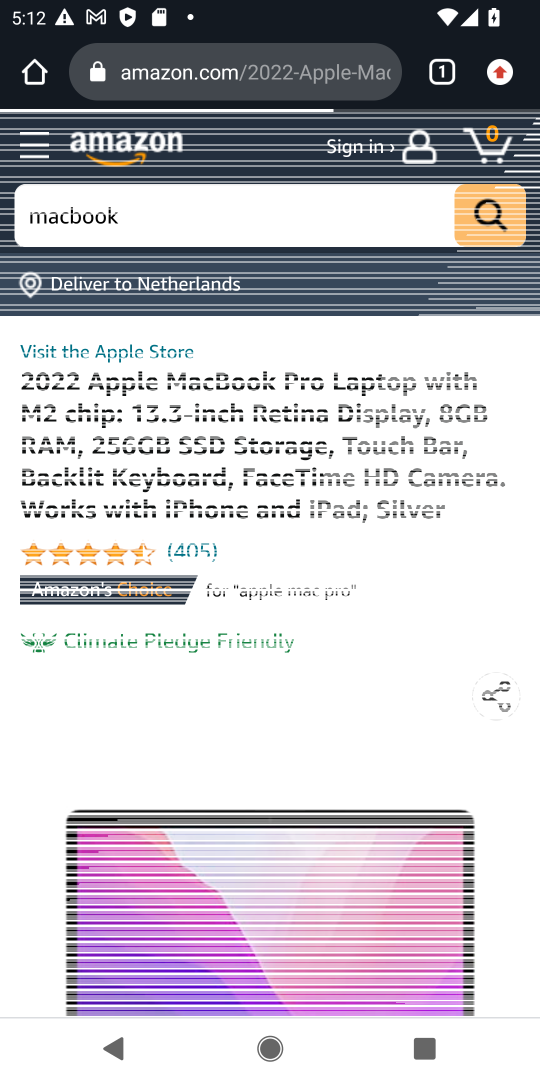
Step 45: drag from (306, 676) to (401, 352)
Your task to perform on an android device: Clear all items from cart on amazon. Add macbook to the cart on amazon Image 46: 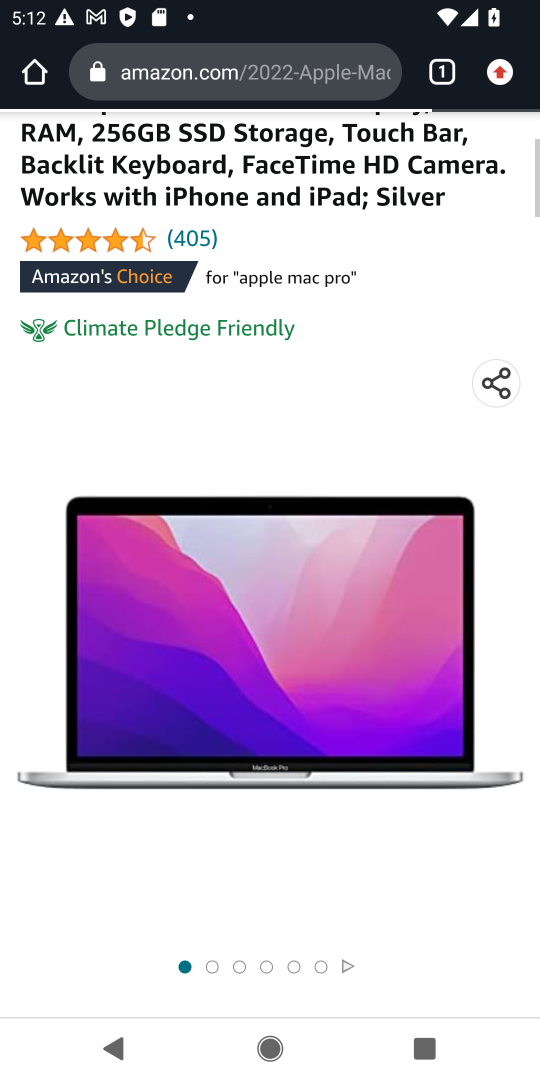
Step 46: drag from (326, 718) to (413, 317)
Your task to perform on an android device: Clear all items from cart on amazon. Add macbook to the cart on amazon Image 47: 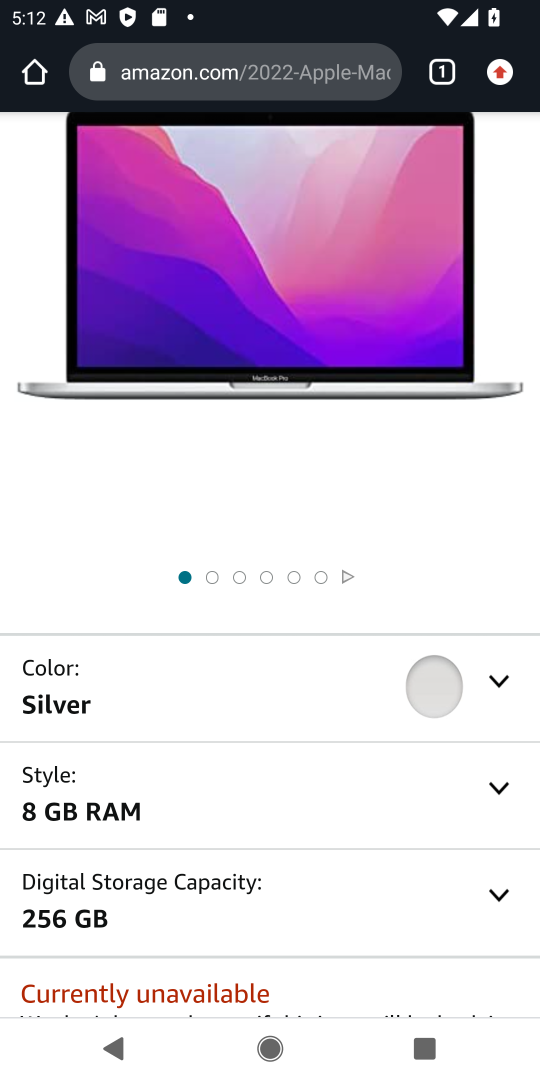
Step 47: drag from (309, 773) to (351, 379)
Your task to perform on an android device: Clear all items from cart on amazon. Add macbook to the cart on amazon Image 48: 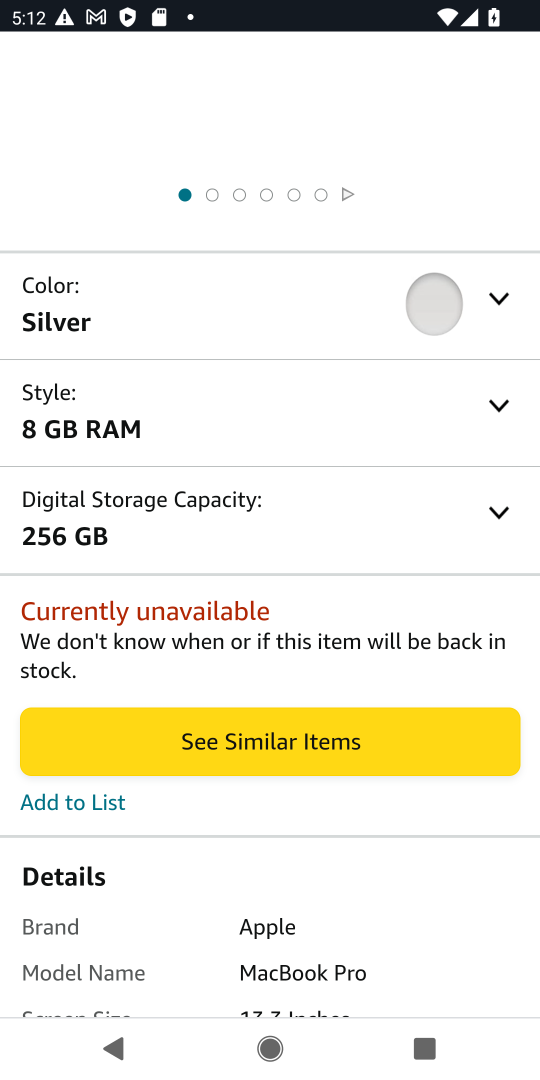
Step 48: press back button
Your task to perform on an android device: Clear all items from cart on amazon. Add macbook to the cart on amazon Image 49: 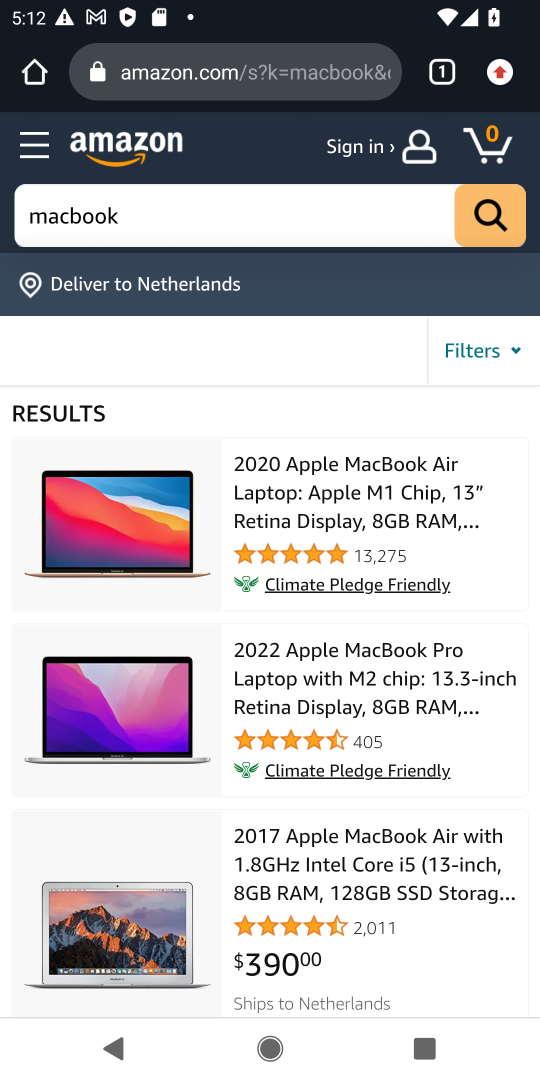
Step 49: drag from (319, 766) to (370, 464)
Your task to perform on an android device: Clear all items from cart on amazon. Add macbook to the cart on amazon Image 50: 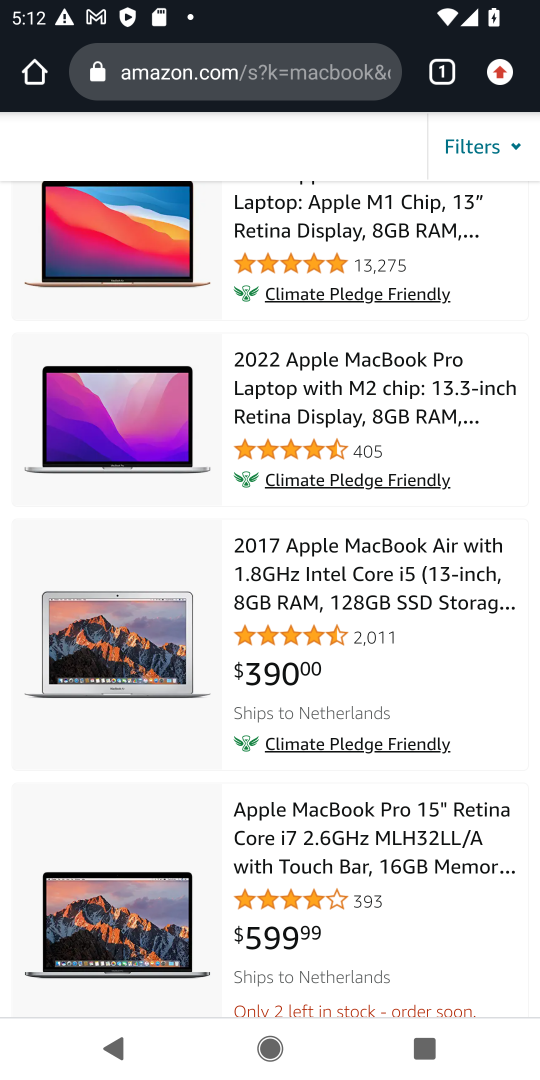
Step 50: click (300, 629)
Your task to perform on an android device: Clear all items from cart on amazon. Add macbook to the cart on amazon Image 51: 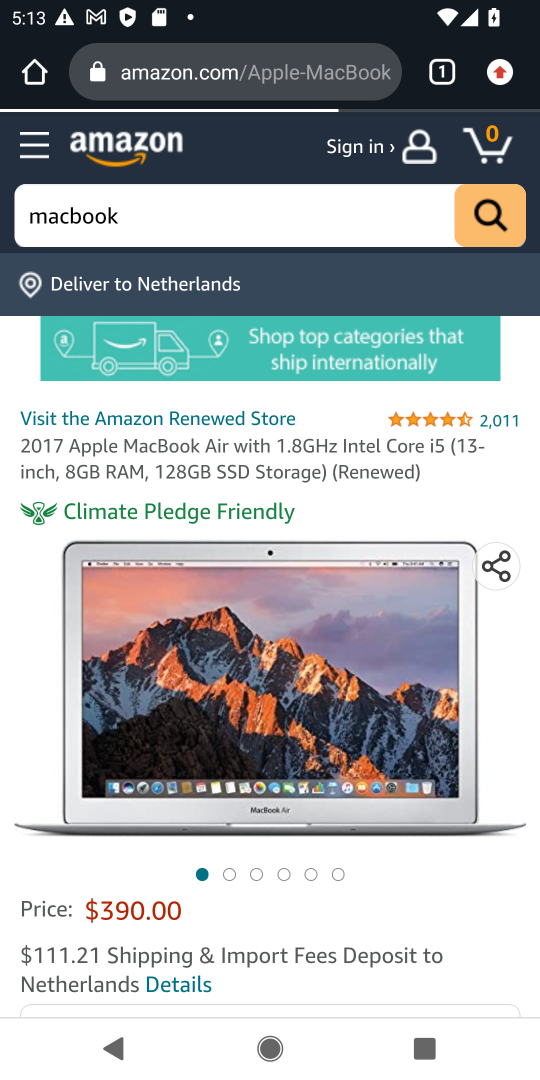
Step 51: drag from (334, 871) to (416, 453)
Your task to perform on an android device: Clear all items from cart on amazon. Add macbook to the cart on amazon Image 52: 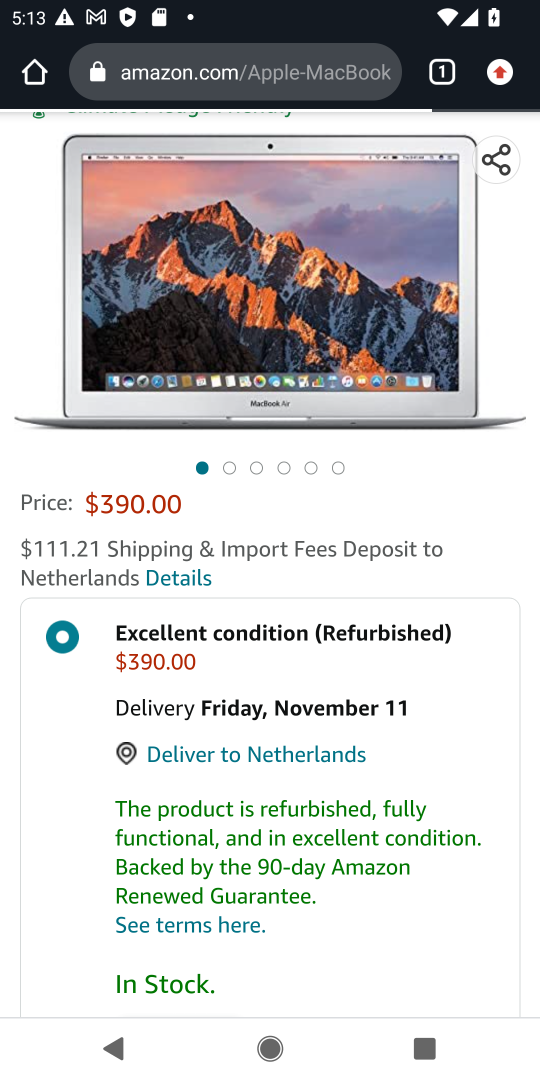
Step 52: drag from (359, 803) to (411, 469)
Your task to perform on an android device: Clear all items from cart on amazon. Add macbook to the cart on amazon Image 53: 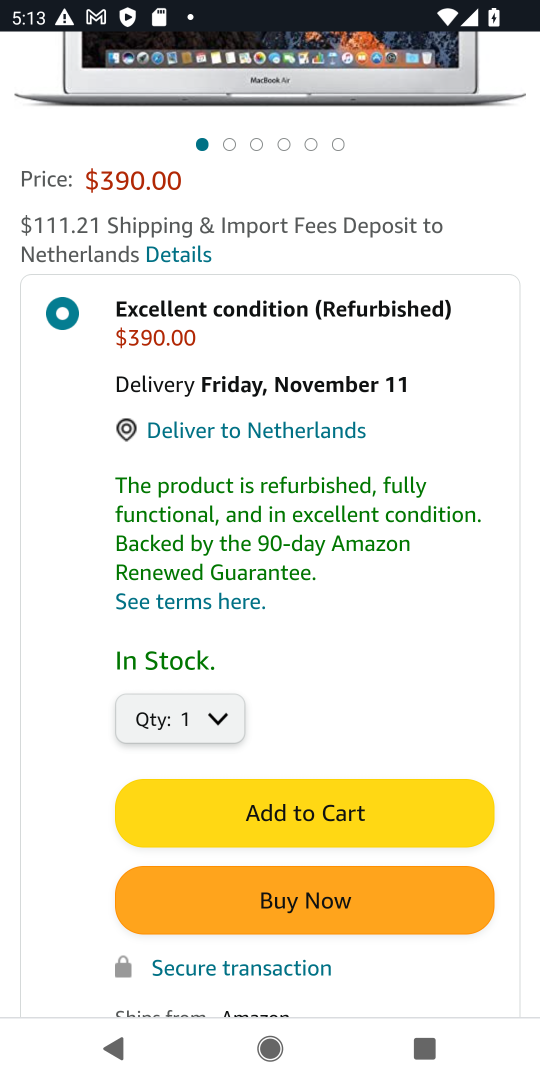
Step 53: click (306, 811)
Your task to perform on an android device: Clear all items from cart on amazon. Add macbook to the cart on amazon Image 54: 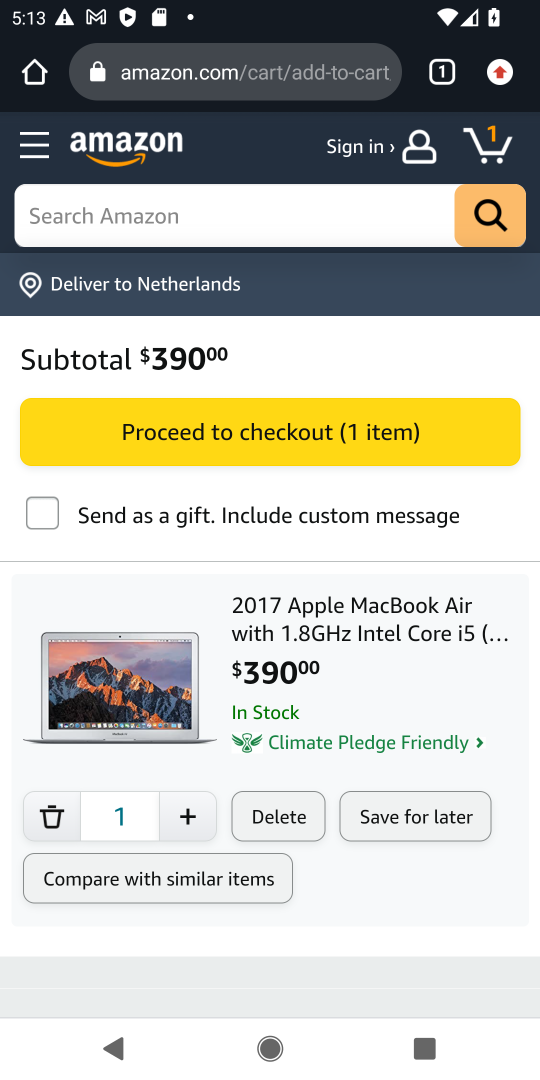
Step 54: task complete